Your task to perform on an android device: change notification settings in the gmail app Image 0: 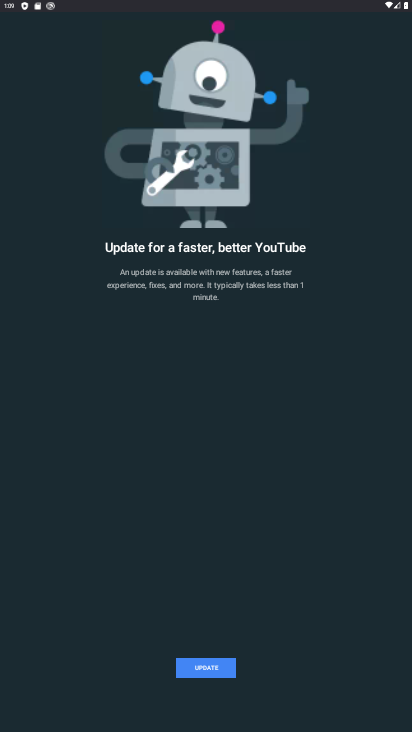
Step 0: press back button
Your task to perform on an android device: change notification settings in the gmail app Image 1: 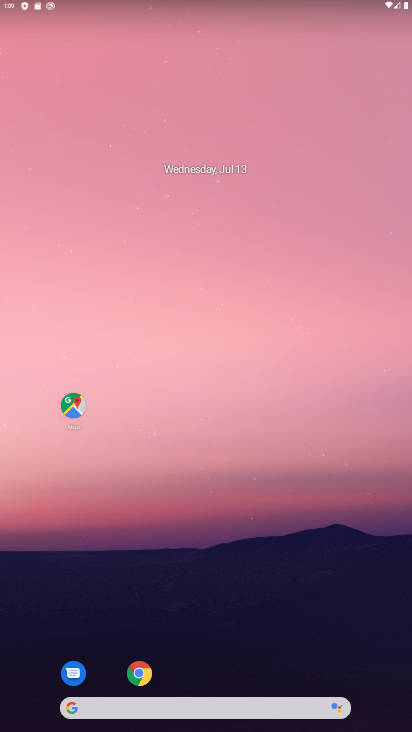
Step 1: drag from (205, 690) to (411, 135)
Your task to perform on an android device: change notification settings in the gmail app Image 2: 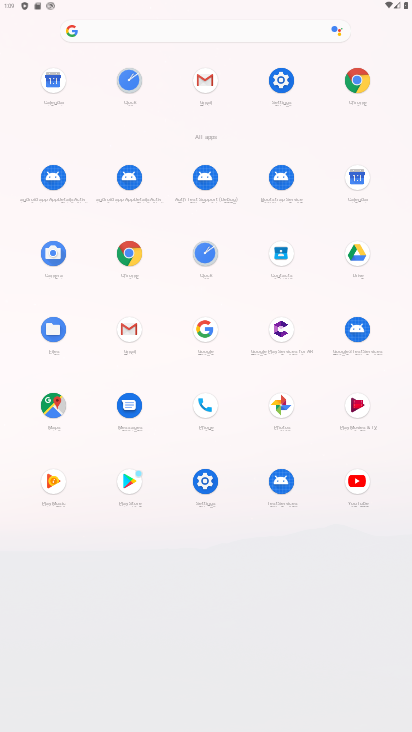
Step 2: click (214, 76)
Your task to perform on an android device: change notification settings in the gmail app Image 3: 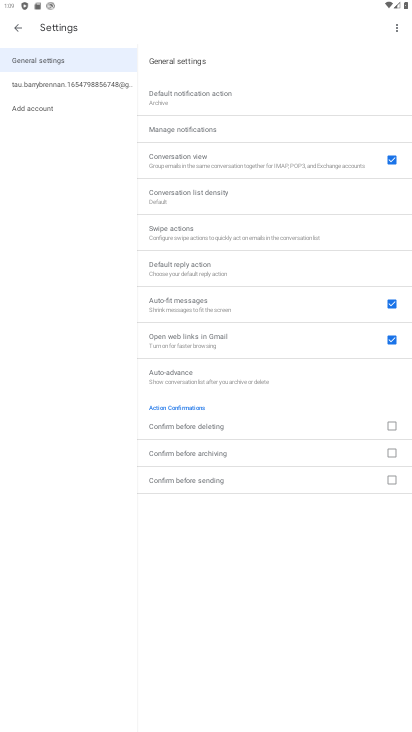
Step 3: click (162, 128)
Your task to perform on an android device: change notification settings in the gmail app Image 4: 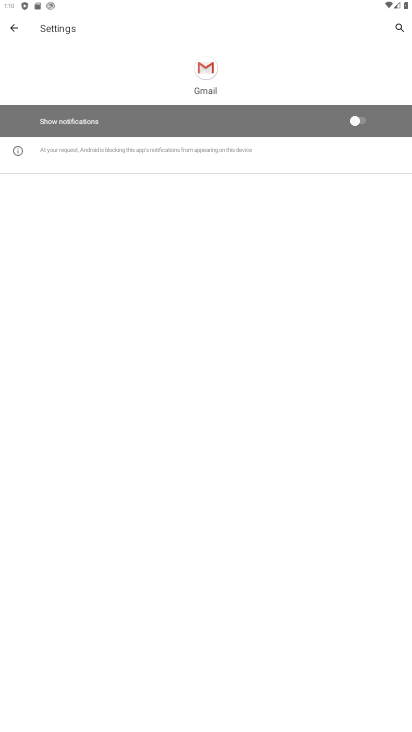
Step 4: click (357, 120)
Your task to perform on an android device: change notification settings in the gmail app Image 5: 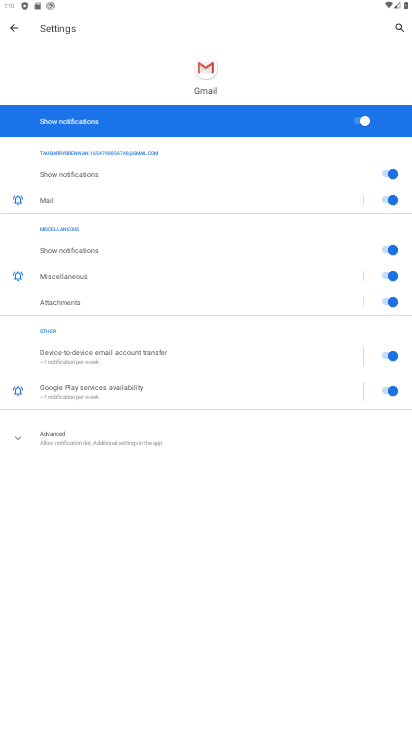
Step 5: task complete